Your task to perform on an android device: turn on translation in the chrome app Image 0: 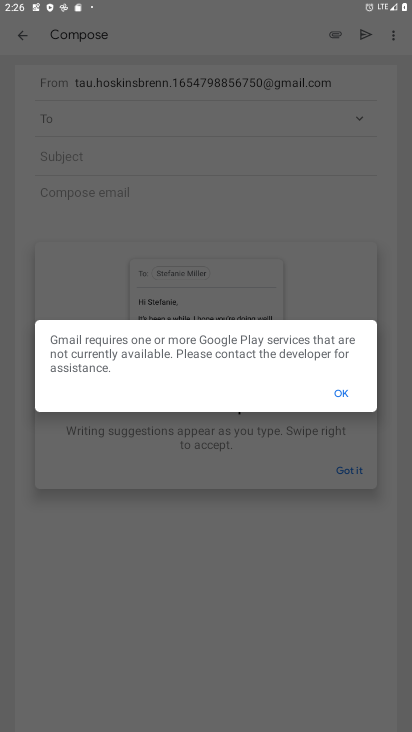
Step 0: press home button
Your task to perform on an android device: turn on translation in the chrome app Image 1: 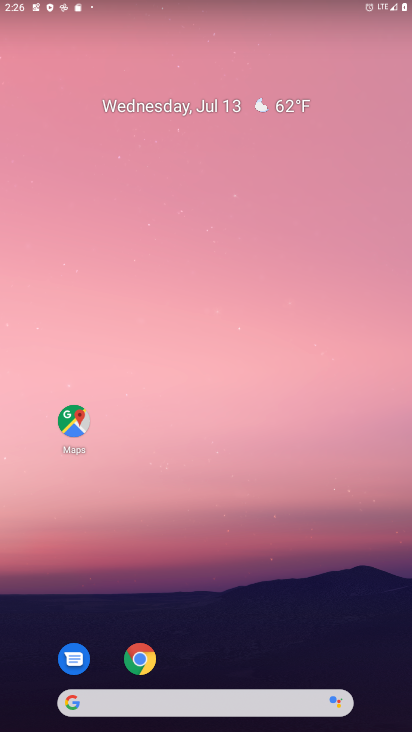
Step 1: click (144, 664)
Your task to perform on an android device: turn on translation in the chrome app Image 2: 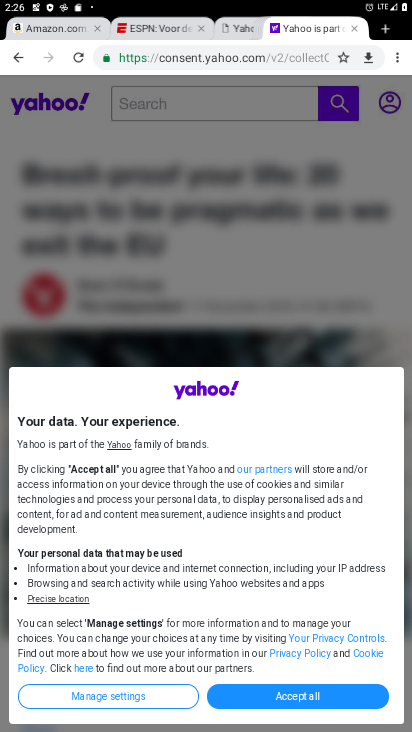
Step 2: click (394, 57)
Your task to perform on an android device: turn on translation in the chrome app Image 3: 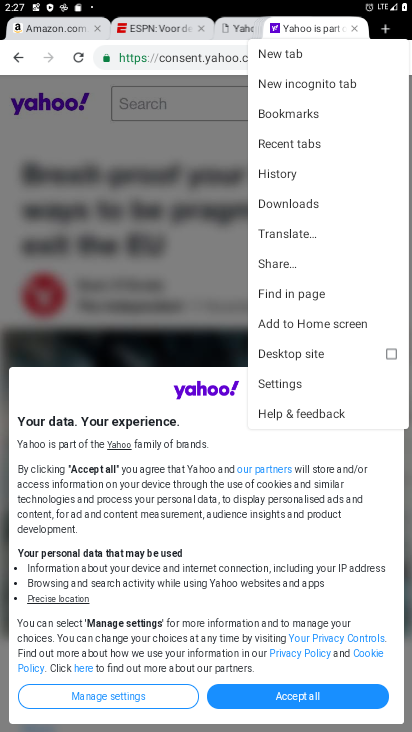
Step 3: click (282, 381)
Your task to perform on an android device: turn on translation in the chrome app Image 4: 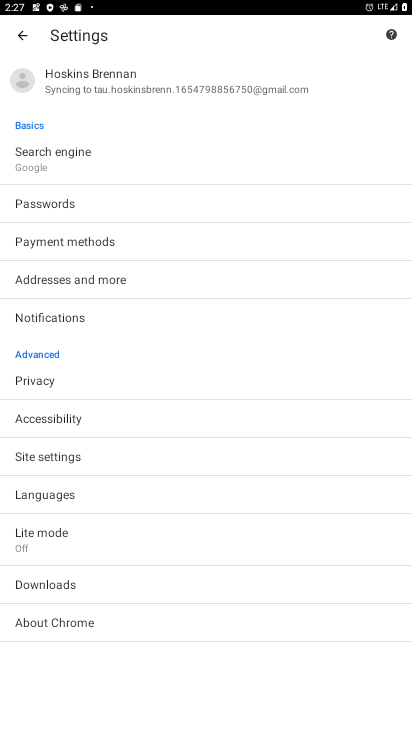
Step 4: click (57, 496)
Your task to perform on an android device: turn on translation in the chrome app Image 5: 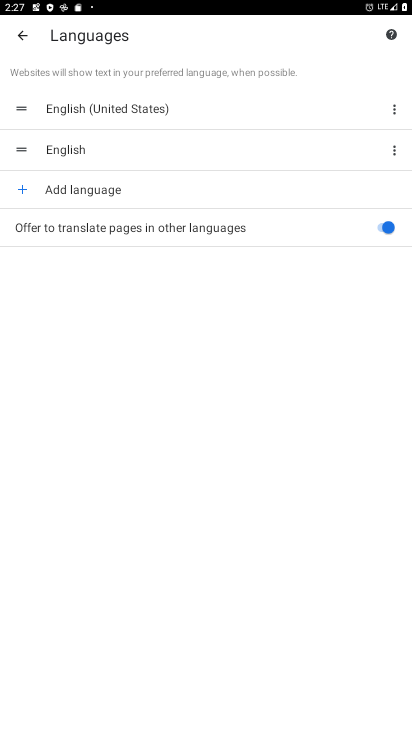
Step 5: task complete